Your task to perform on an android device: turn vacation reply on in the gmail app Image 0: 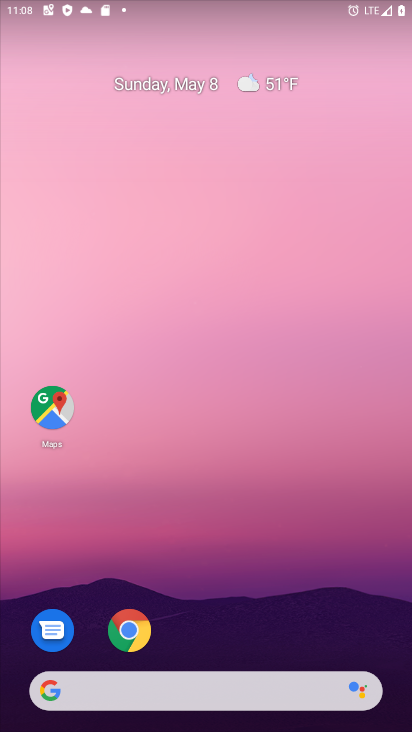
Step 0: drag from (359, 643) to (216, 46)
Your task to perform on an android device: turn vacation reply on in the gmail app Image 1: 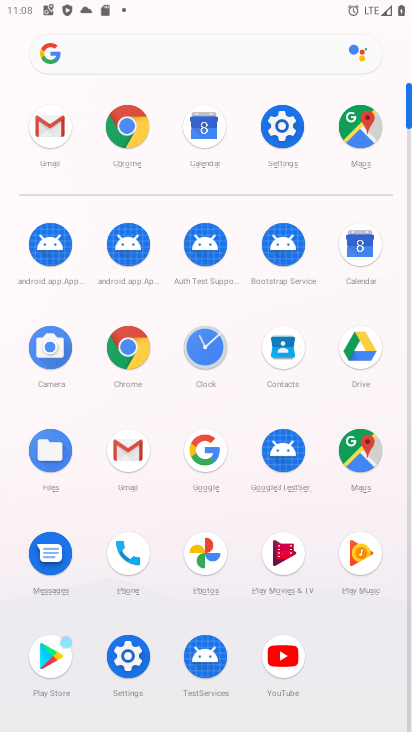
Step 1: click (123, 465)
Your task to perform on an android device: turn vacation reply on in the gmail app Image 2: 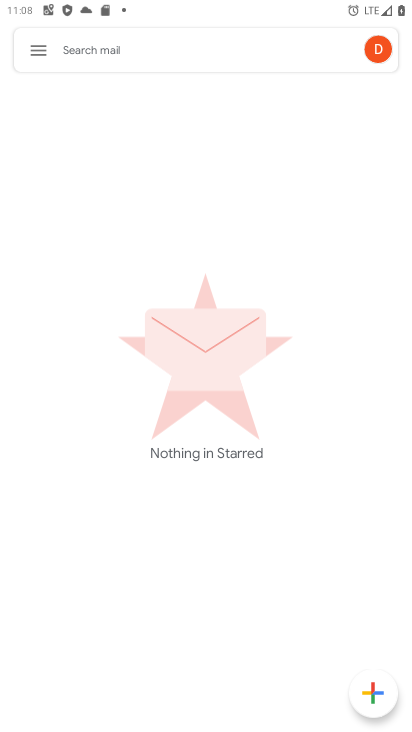
Step 2: click (38, 47)
Your task to perform on an android device: turn vacation reply on in the gmail app Image 3: 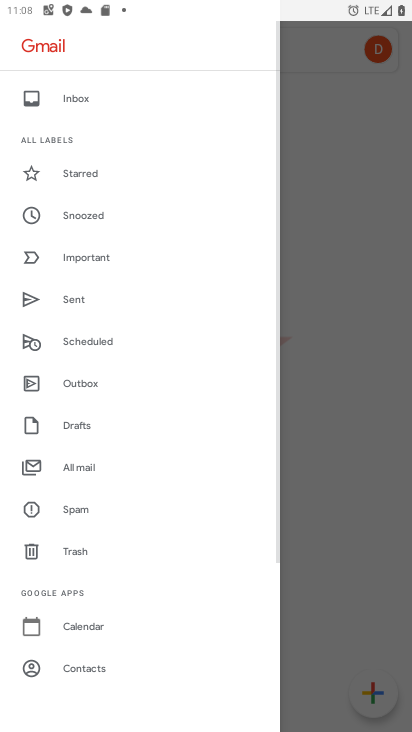
Step 3: drag from (93, 653) to (136, 97)
Your task to perform on an android device: turn vacation reply on in the gmail app Image 4: 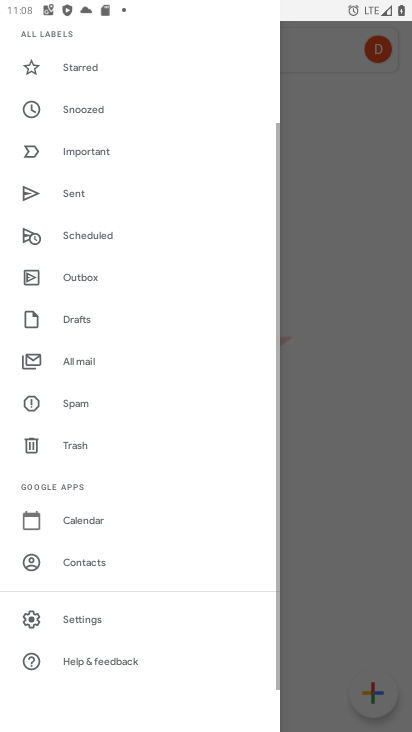
Step 4: click (87, 617)
Your task to perform on an android device: turn vacation reply on in the gmail app Image 5: 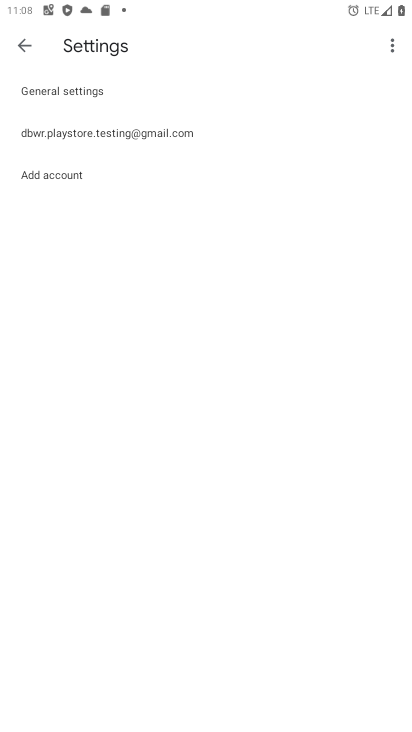
Step 5: click (77, 128)
Your task to perform on an android device: turn vacation reply on in the gmail app Image 6: 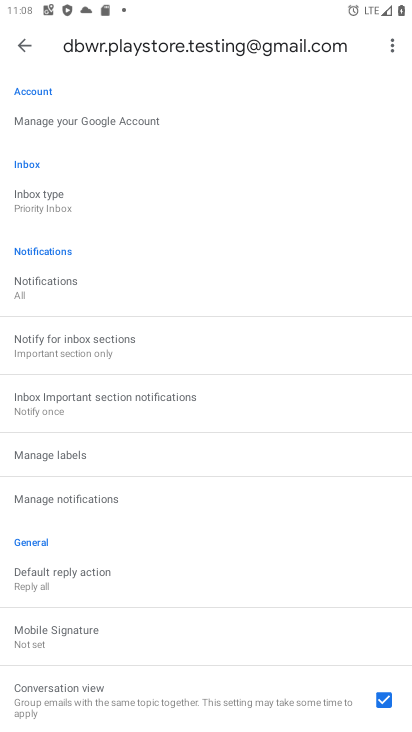
Step 6: drag from (143, 634) to (256, 62)
Your task to perform on an android device: turn vacation reply on in the gmail app Image 7: 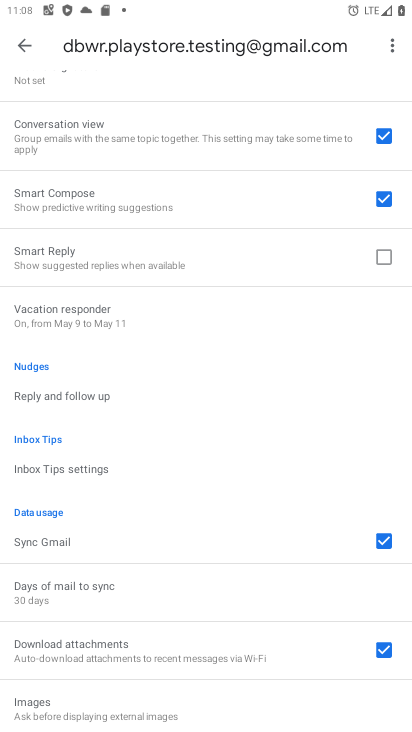
Step 7: drag from (165, 631) to (177, 133)
Your task to perform on an android device: turn vacation reply on in the gmail app Image 8: 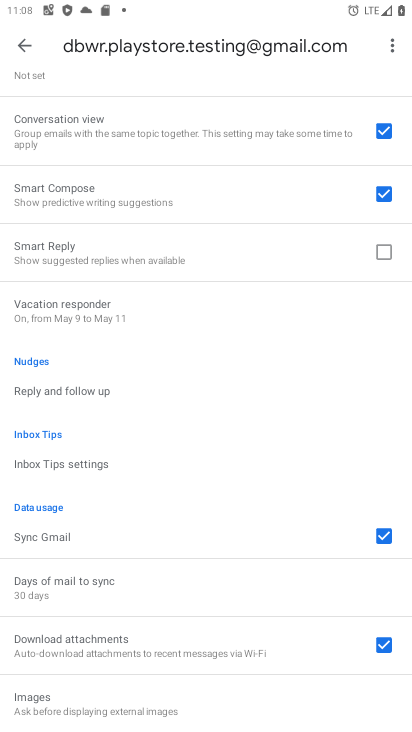
Step 8: click (115, 328)
Your task to perform on an android device: turn vacation reply on in the gmail app Image 9: 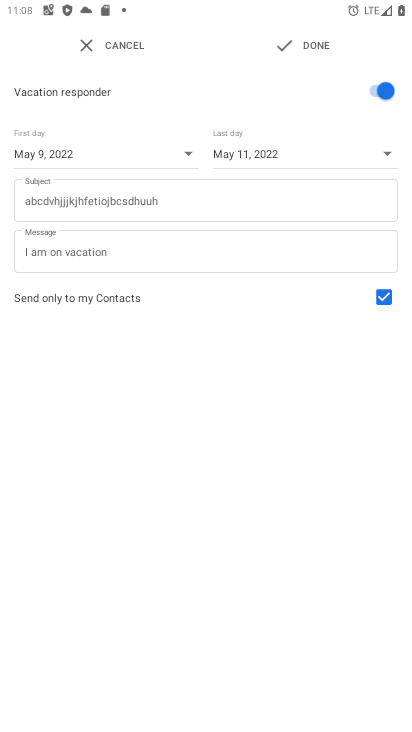
Step 9: task complete